Your task to perform on an android device: Open the web browser Image 0: 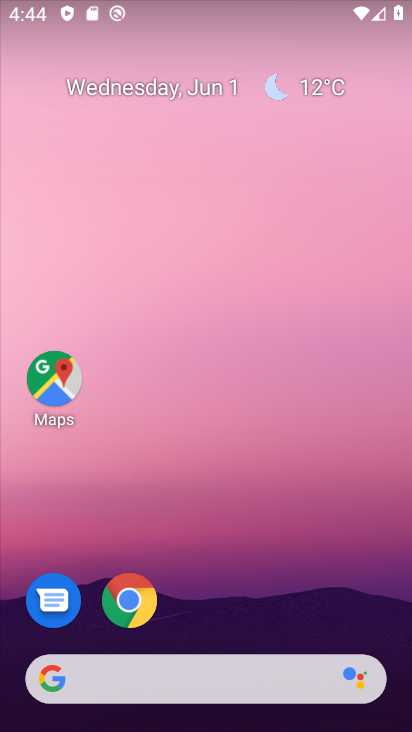
Step 0: click (128, 599)
Your task to perform on an android device: Open the web browser Image 1: 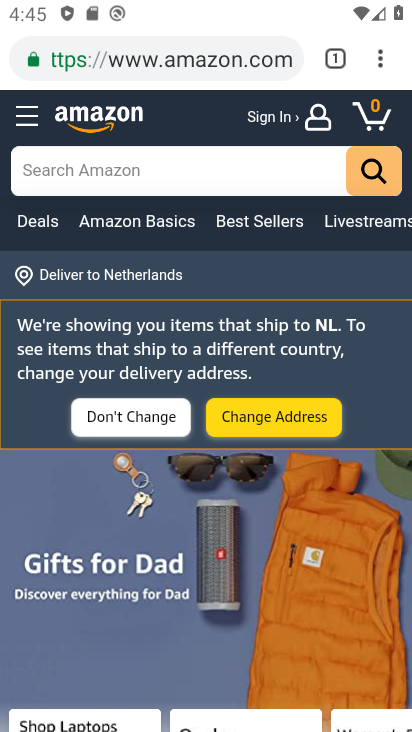
Step 1: task complete